Your task to perform on an android device: add a contact Image 0: 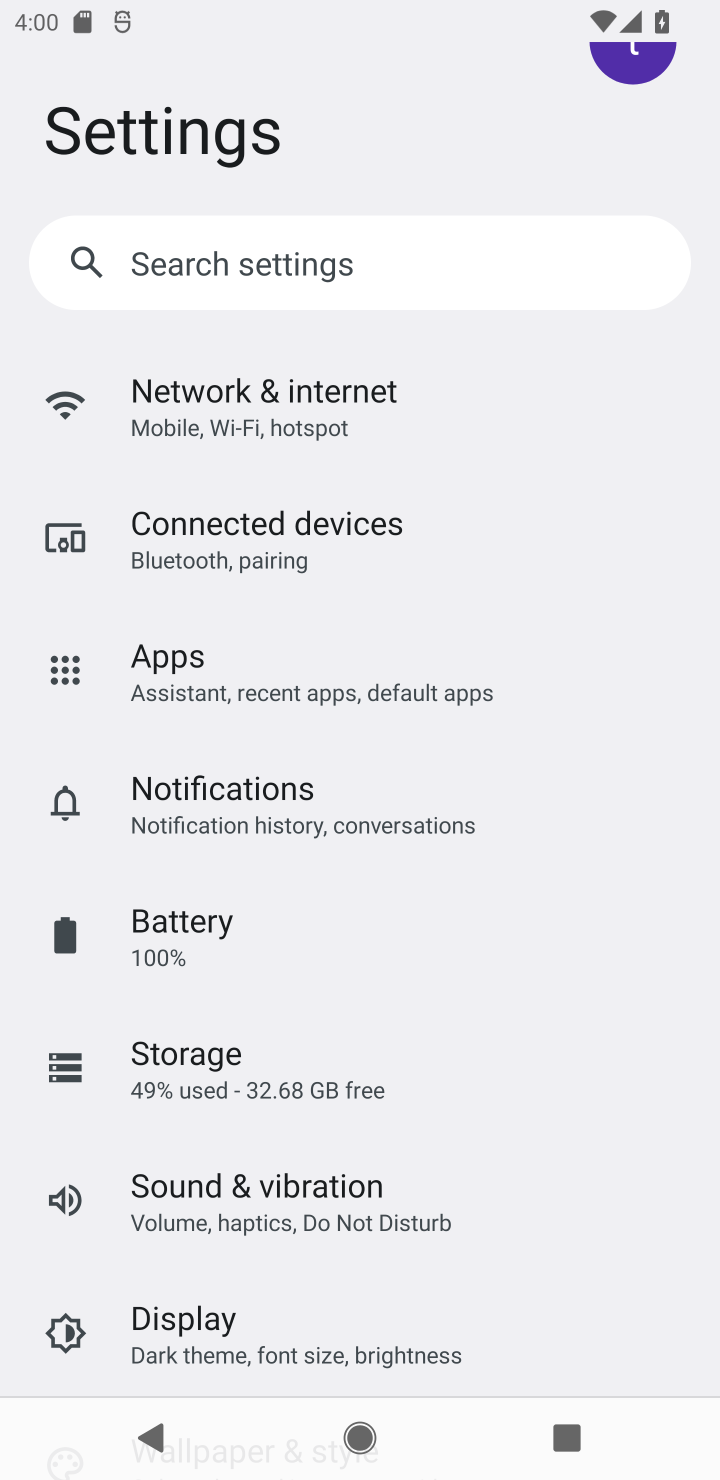
Step 0: press home button
Your task to perform on an android device: add a contact Image 1: 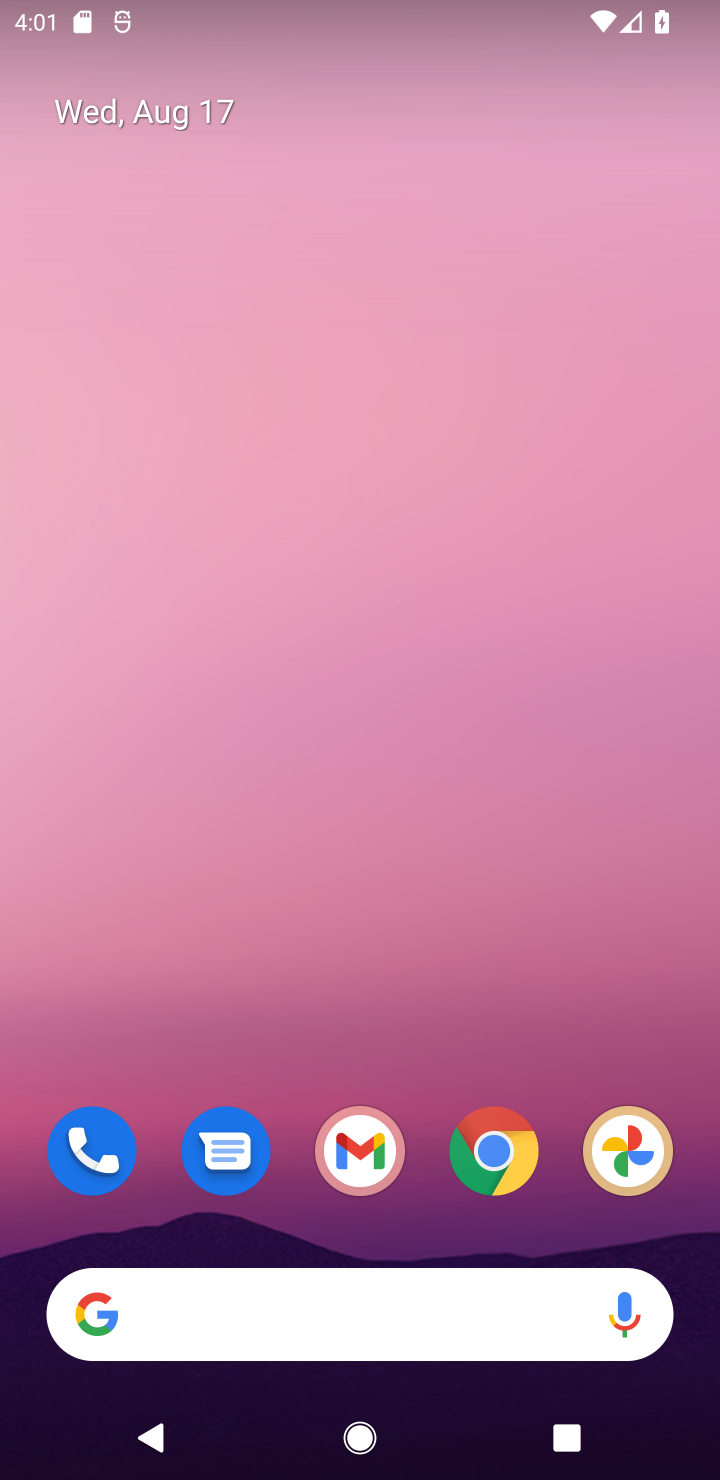
Step 1: drag from (249, 1215) to (164, 226)
Your task to perform on an android device: add a contact Image 2: 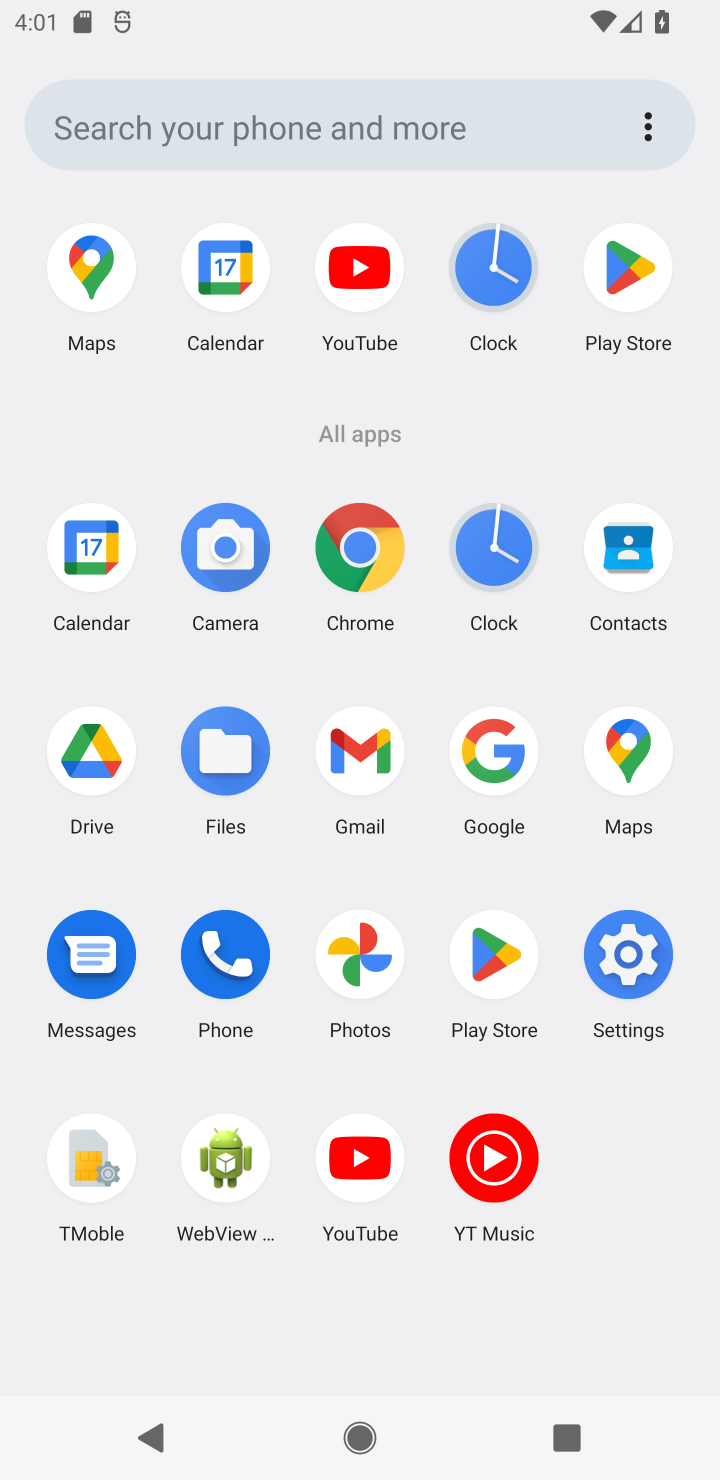
Step 2: click (614, 605)
Your task to perform on an android device: add a contact Image 3: 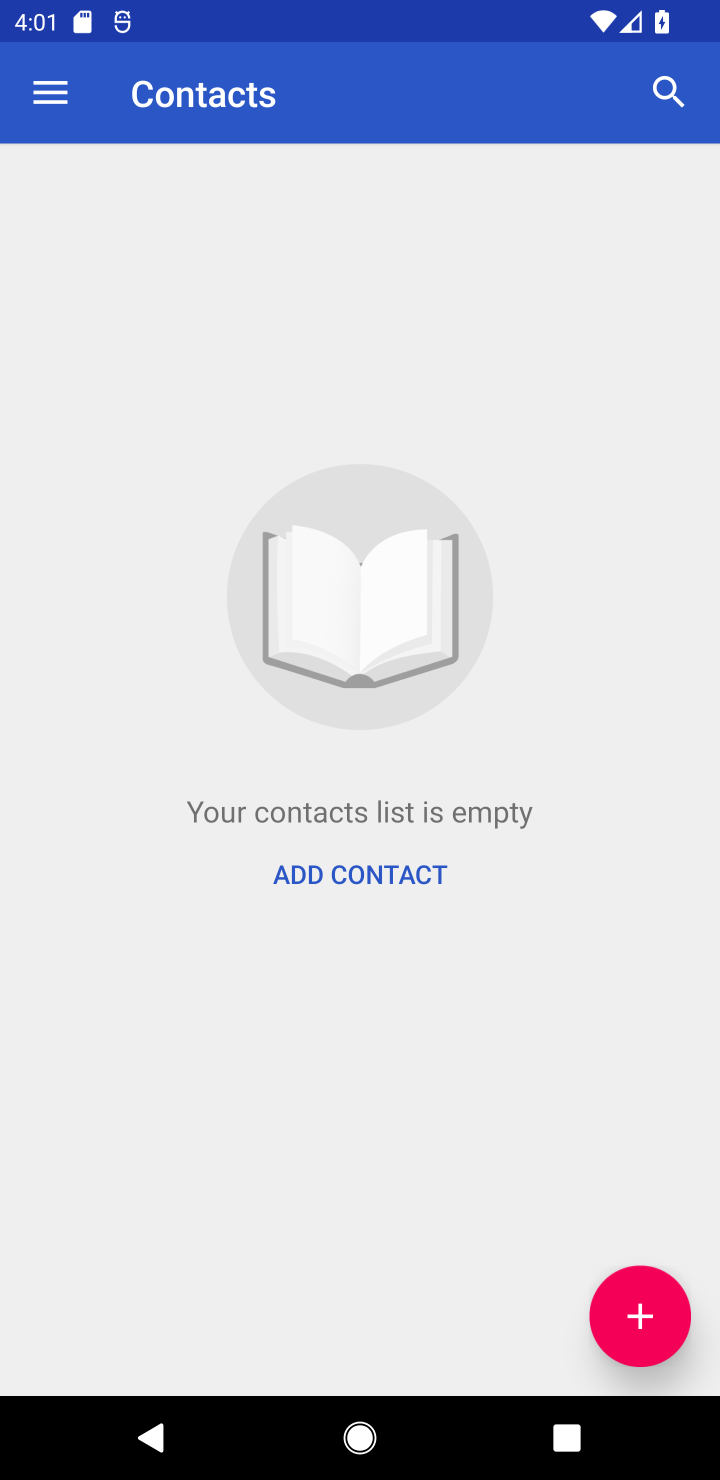
Step 3: click (631, 1337)
Your task to perform on an android device: add a contact Image 4: 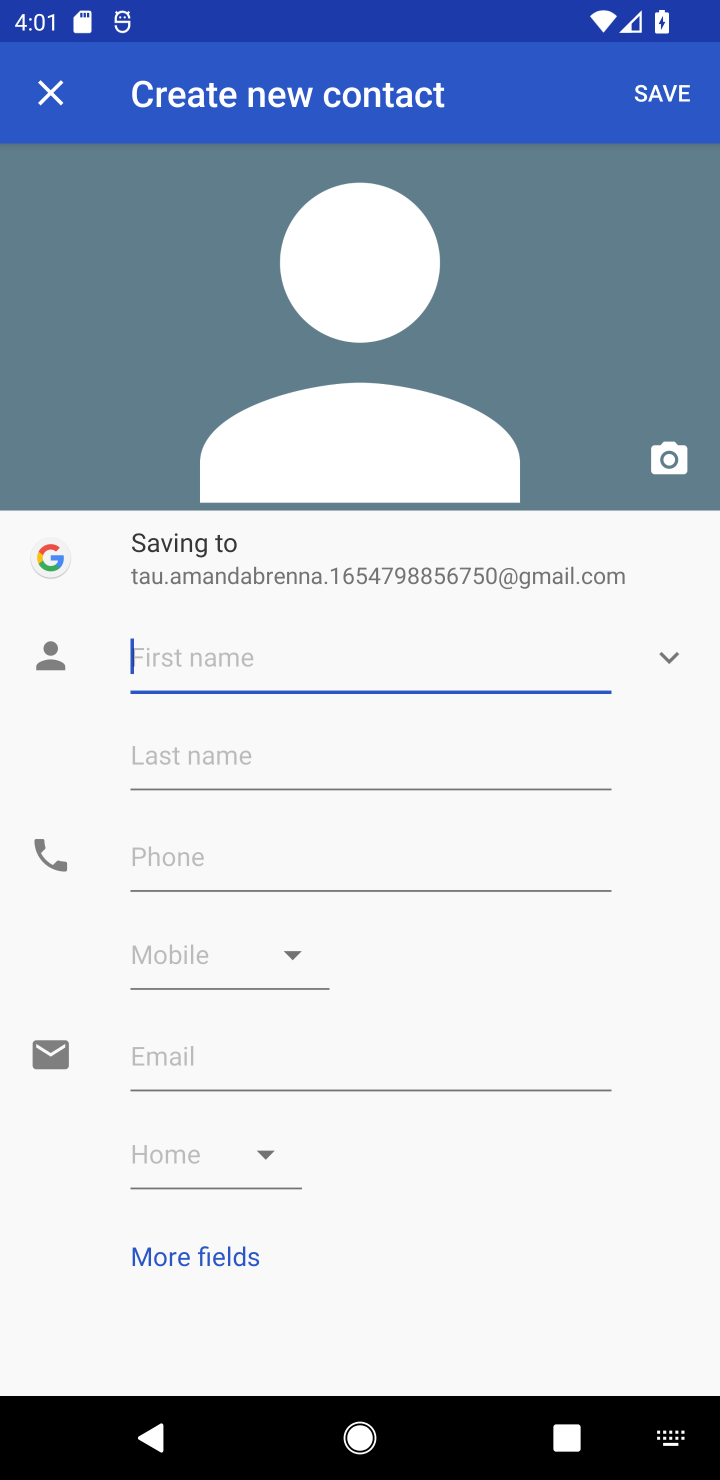
Step 4: type "sadaf"
Your task to perform on an android device: add a contact Image 5: 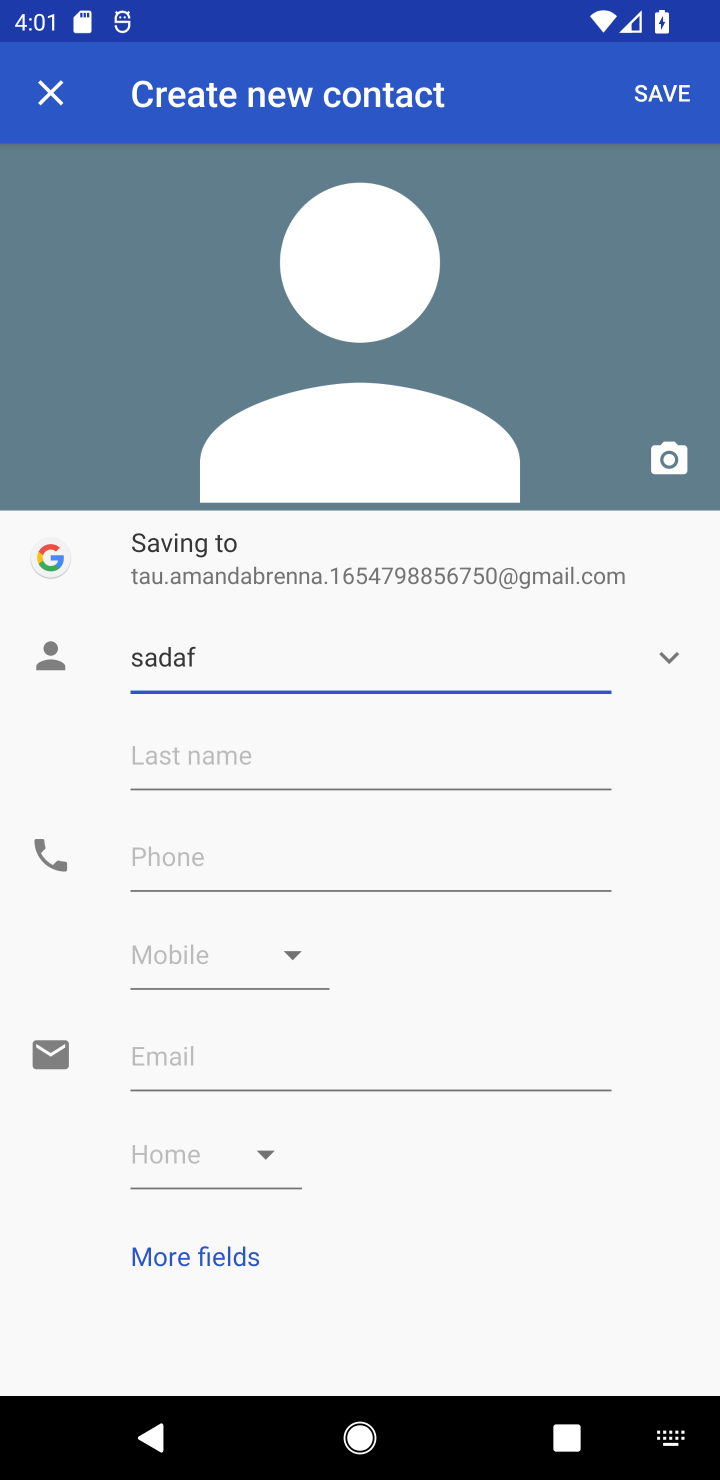
Step 5: click (222, 776)
Your task to perform on an android device: add a contact Image 6: 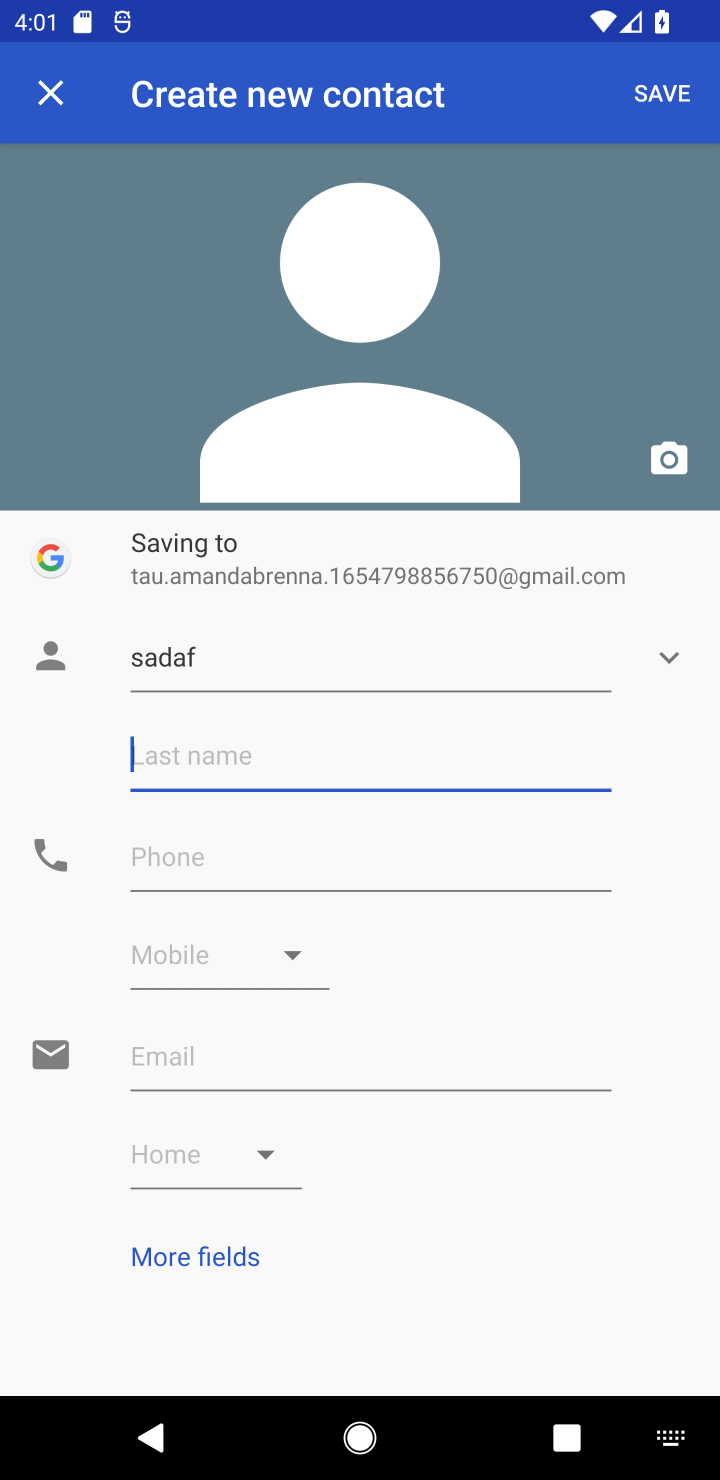
Step 6: type "assdsfgdfhf"
Your task to perform on an android device: add a contact Image 7: 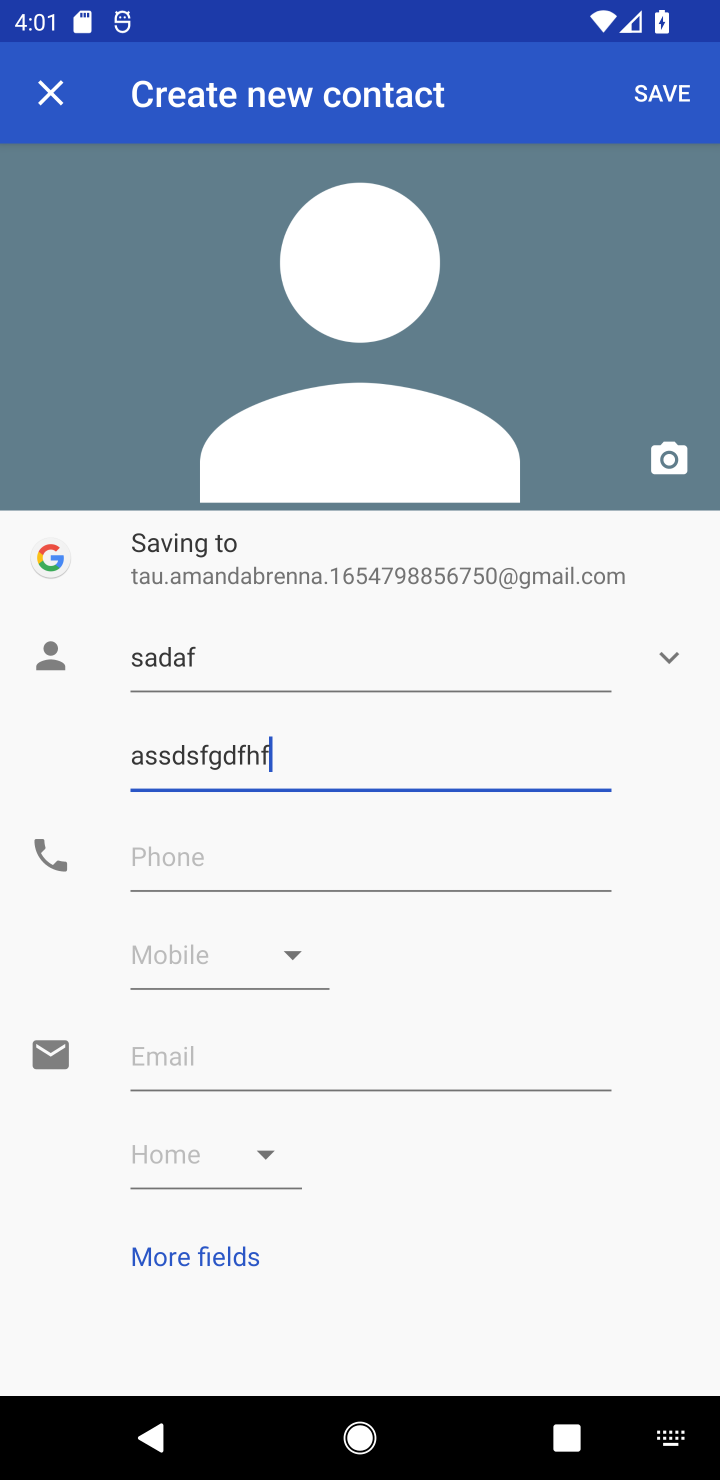
Step 7: click (235, 878)
Your task to perform on an android device: add a contact Image 8: 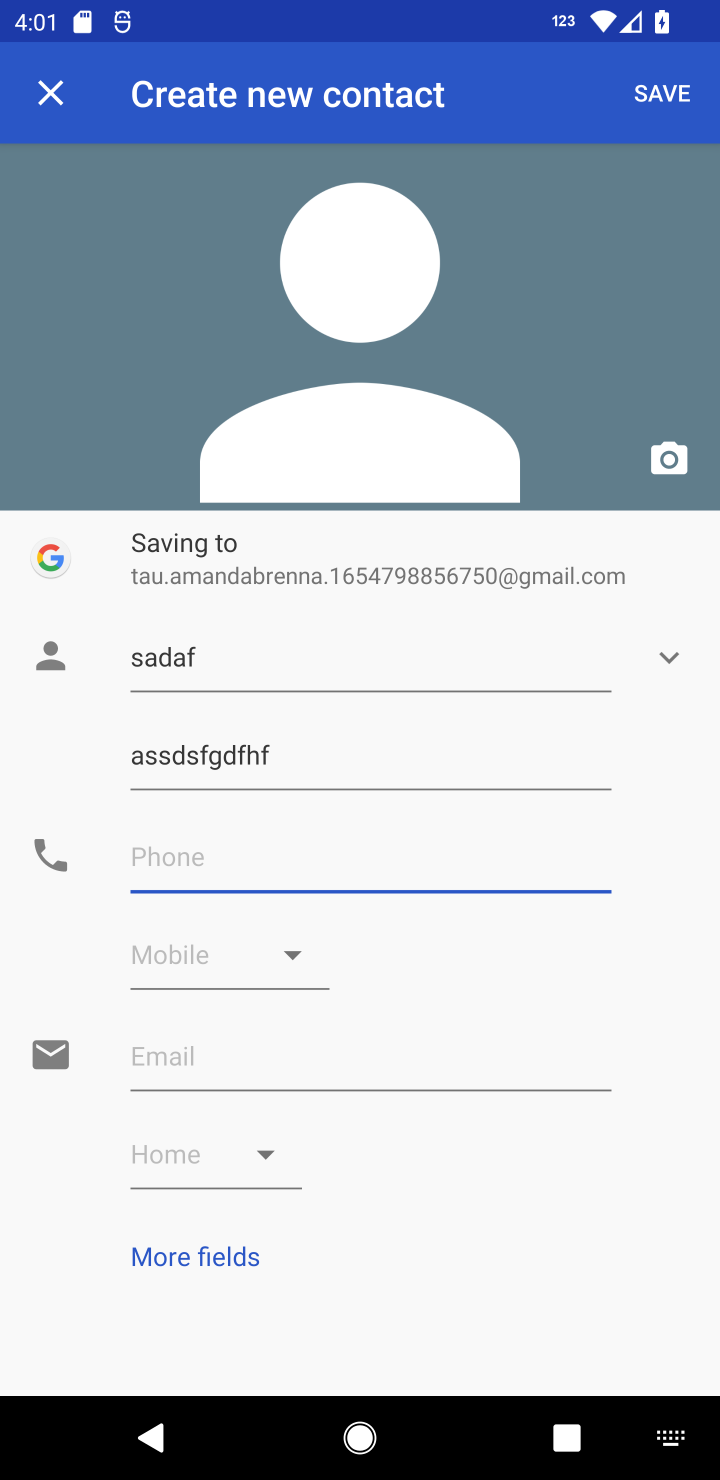
Step 8: type "123456789087654321"
Your task to perform on an android device: add a contact Image 9: 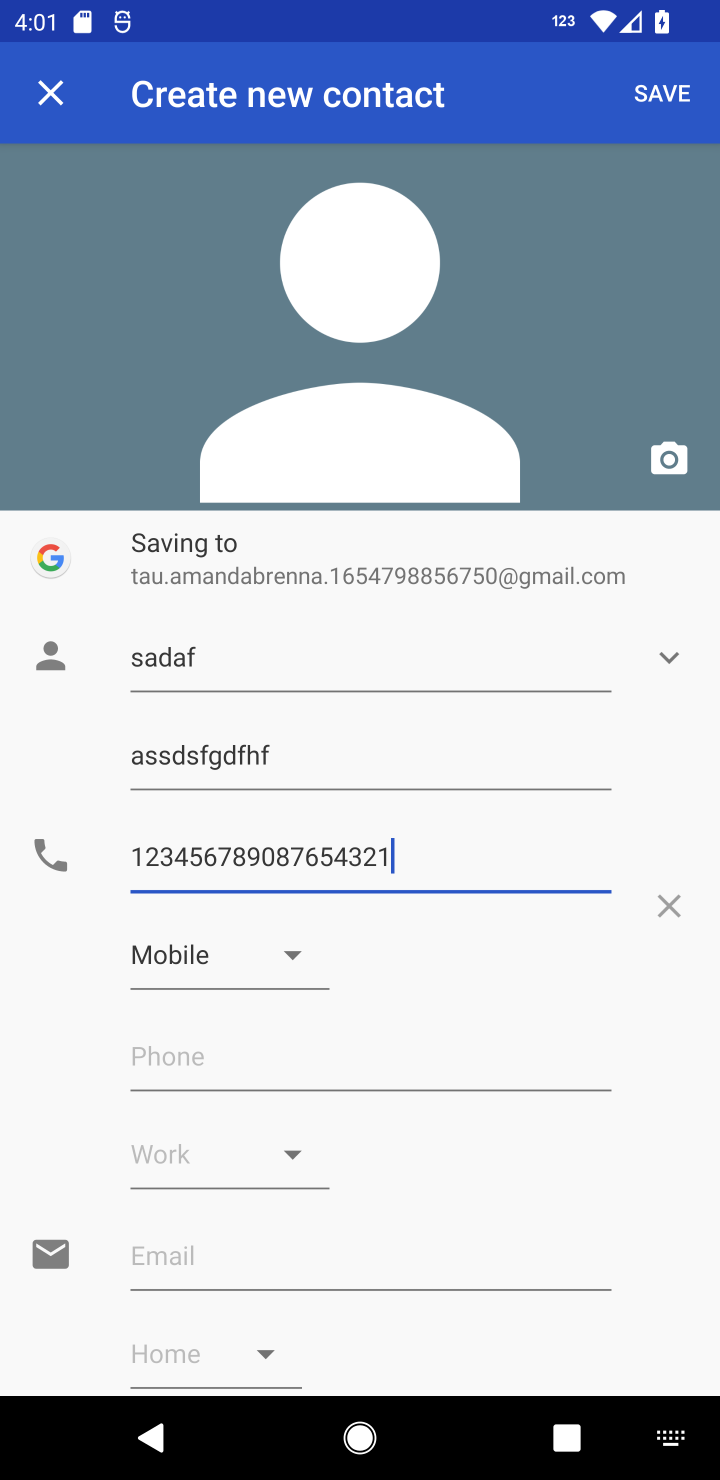
Step 9: click (685, 115)
Your task to perform on an android device: add a contact Image 10: 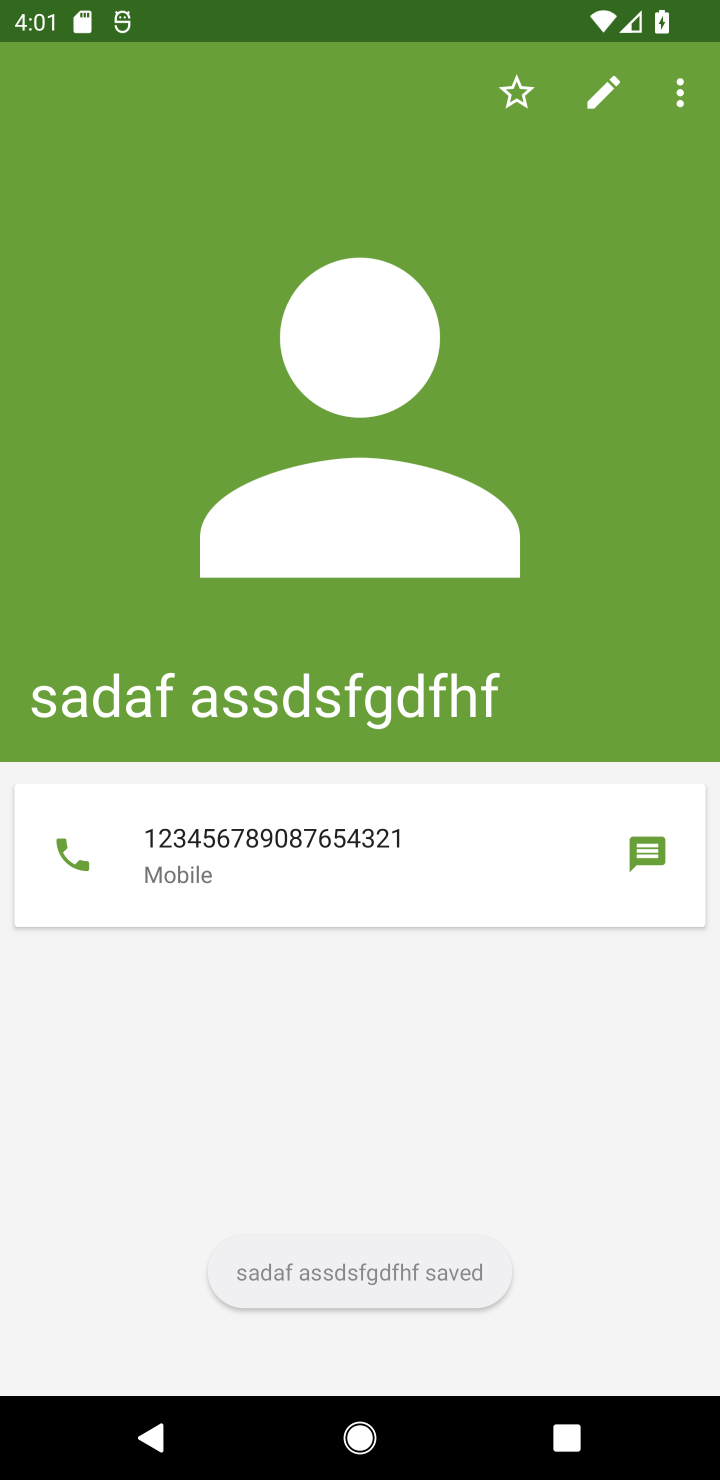
Step 10: task complete